Your task to perform on an android device: Go to notification settings Image 0: 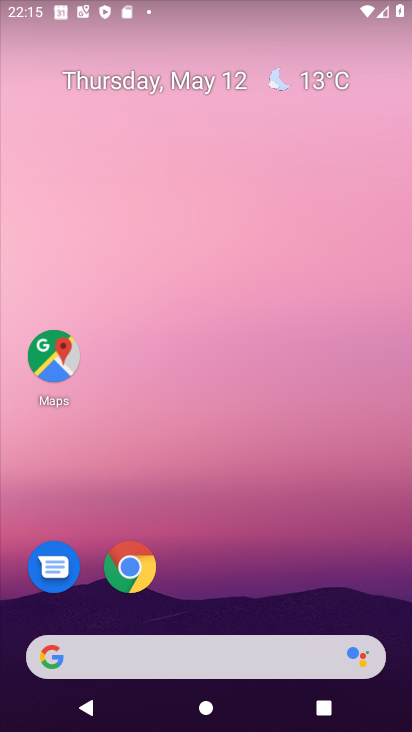
Step 0: drag from (205, 594) to (209, 32)
Your task to perform on an android device: Go to notification settings Image 1: 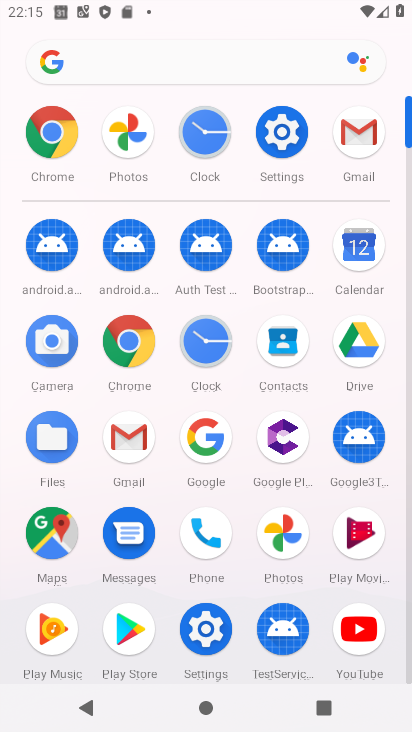
Step 1: click (277, 122)
Your task to perform on an android device: Go to notification settings Image 2: 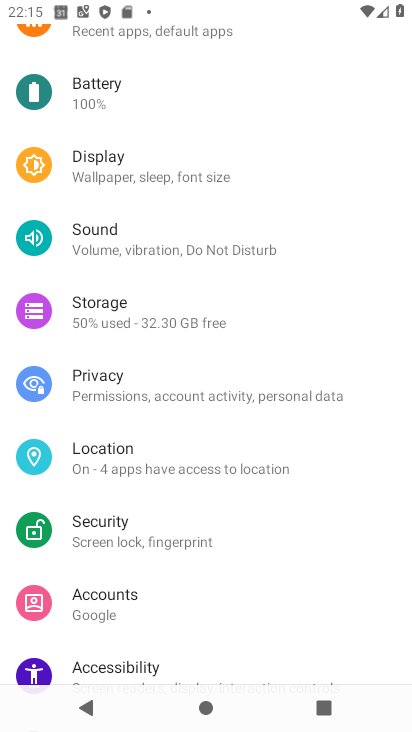
Step 2: drag from (125, 123) to (164, 571)
Your task to perform on an android device: Go to notification settings Image 3: 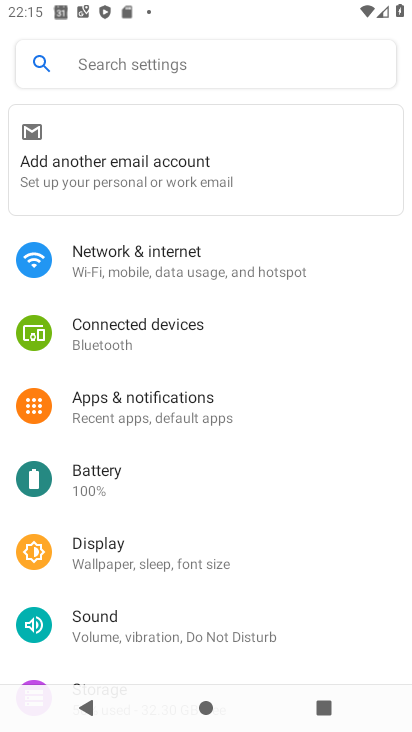
Step 3: click (191, 392)
Your task to perform on an android device: Go to notification settings Image 4: 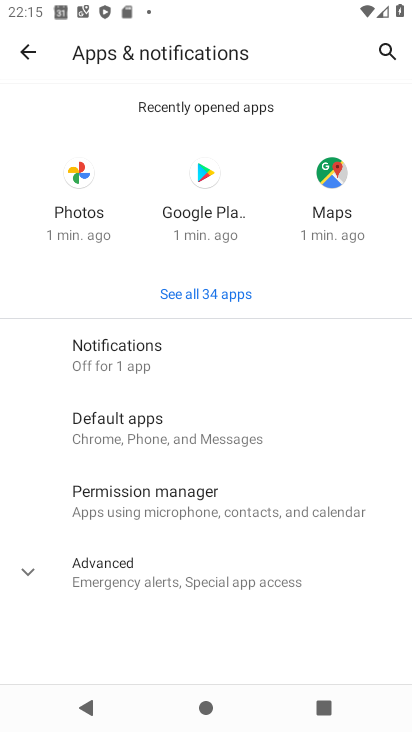
Step 4: click (173, 356)
Your task to perform on an android device: Go to notification settings Image 5: 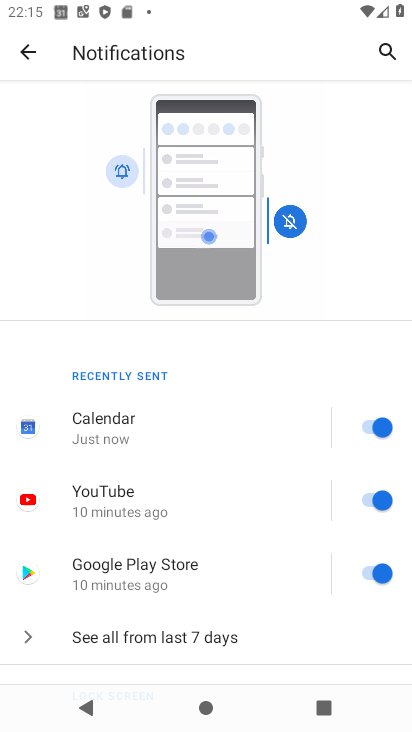
Step 5: drag from (225, 618) to (222, 266)
Your task to perform on an android device: Go to notification settings Image 6: 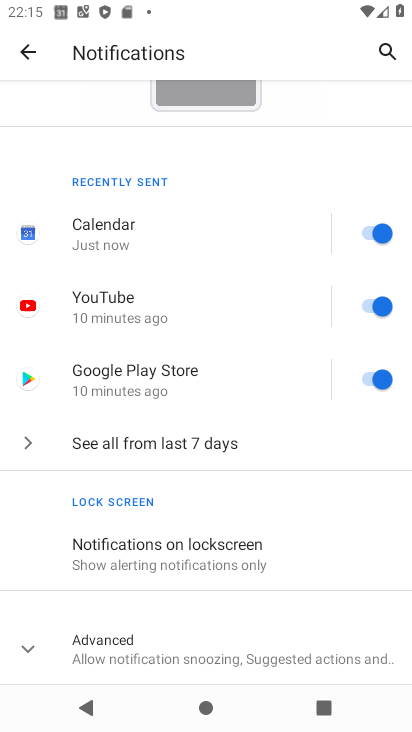
Step 6: click (29, 646)
Your task to perform on an android device: Go to notification settings Image 7: 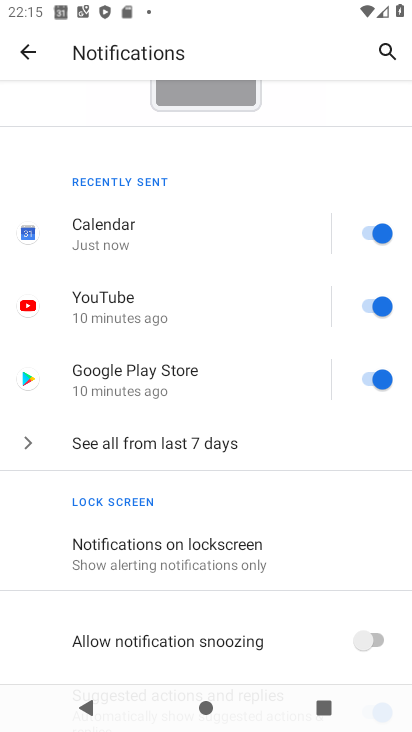
Step 7: task complete